Your task to perform on an android device: Open calendar and show me the first week of next month Image 0: 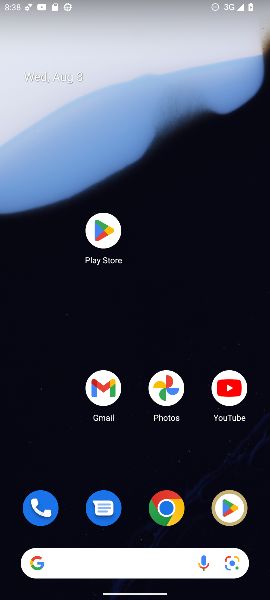
Step 0: drag from (162, 534) to (91, 17)
Your task to perform on an android device: Open calendar and show me the first week of next month Image 1: 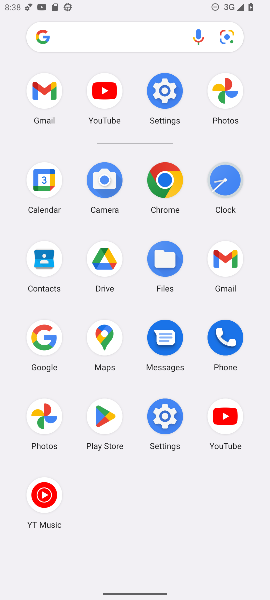
Step 1: click (38, 188)
Your task to perform on an android device: Open calendar and show me the first week of next month Image 2: 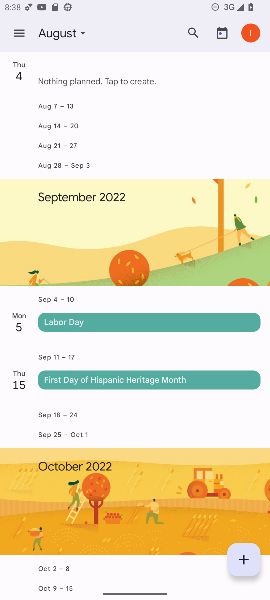
Step 2: click (19, 34)
Your task to perform on an android device: Open calendar and show me the first week of next month Image 3: 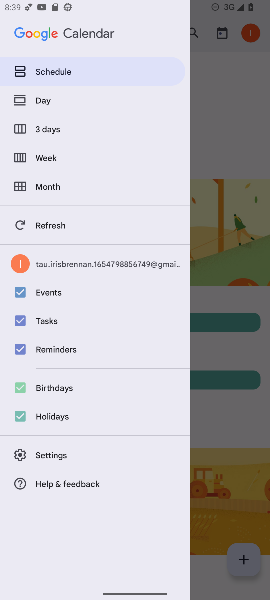
Step 3: click (40, 157)
Your task to perform on an android device: Open calendar and show me the first week of next month Image 4: 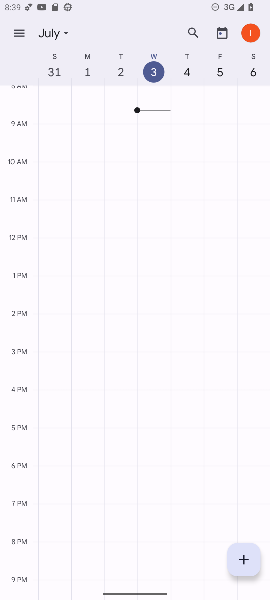
Step 4: task complete